Your task to perform on an android device: open a new tab in the chrome app Image 0: 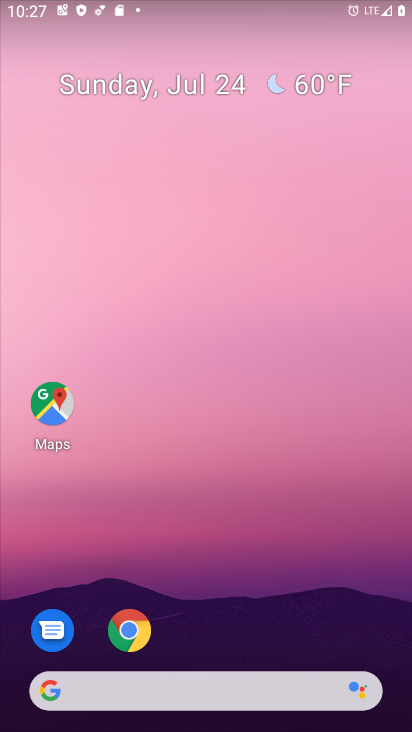
Step 0: click (138, 628)
Your task to perform on an android device: open a new tab in the chrome app Image 1: 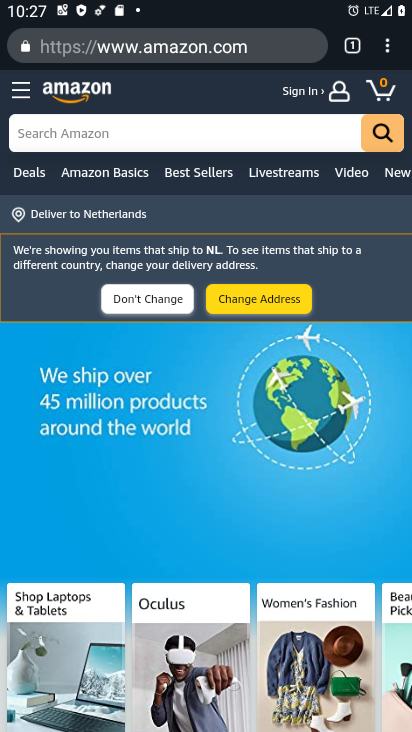
Step 1: click (394, 50)
Your task to perform on an android device: open a new tab in the chrome app Image 2: 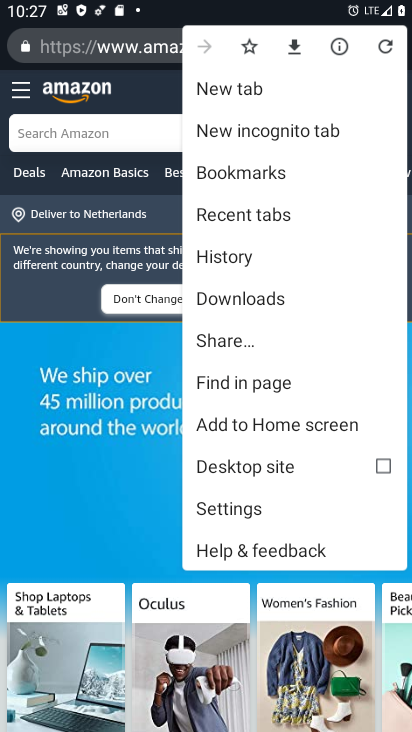
Step 2: click (248, 89)
Your task to perform on an android device: open a new tab in the chrome app Image 3: 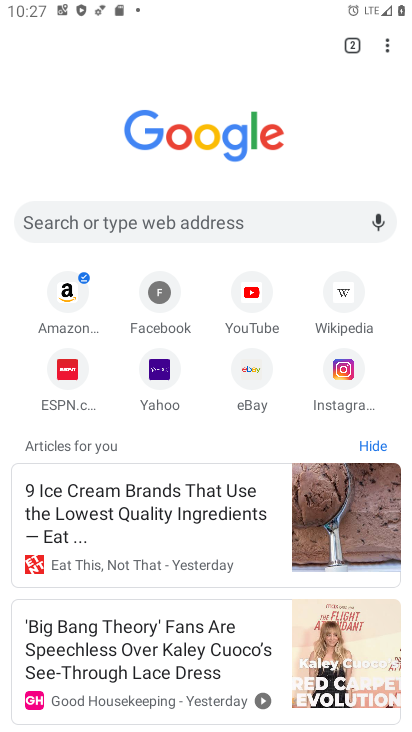
Step 3: task complete